Your task to perform on an android device: open app "Truecaller" Image 0: 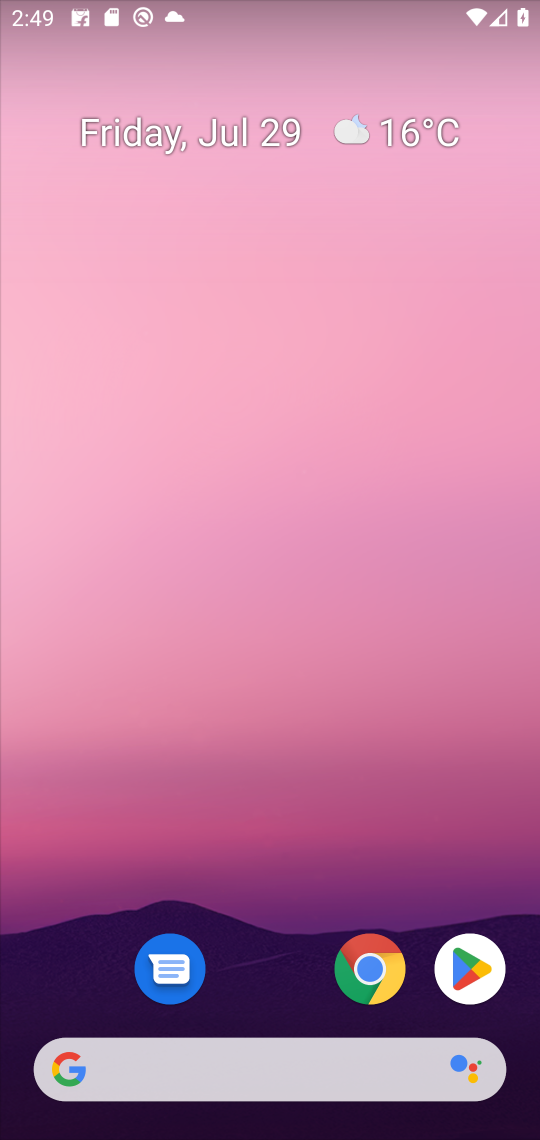
Step 0: press home button
Your task to perform on an android device: open app "Truecaller" Image 1: 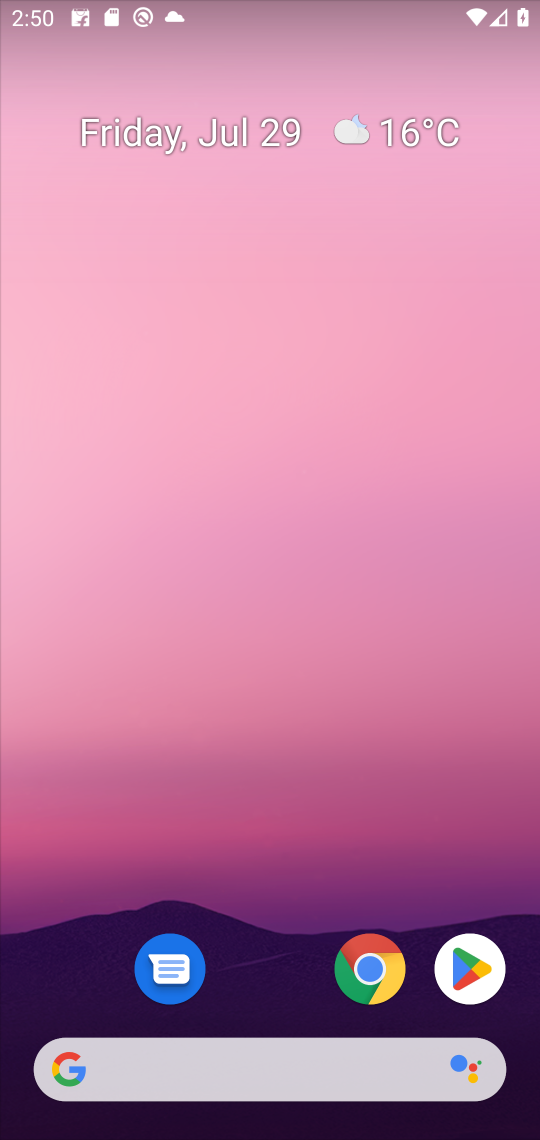
Step 1: click (484, 986)
Your task to perform on an android device: open app "Truecaller" Image 2: 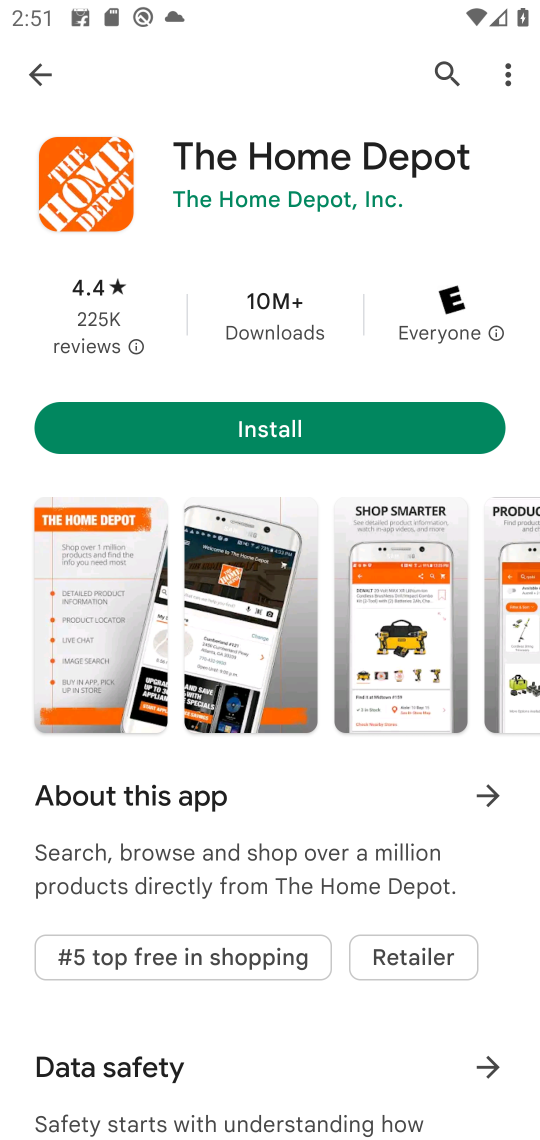
Step 2: click (442, 67)
Your task to perform on an android device: open app "Truecaller" Image 3: 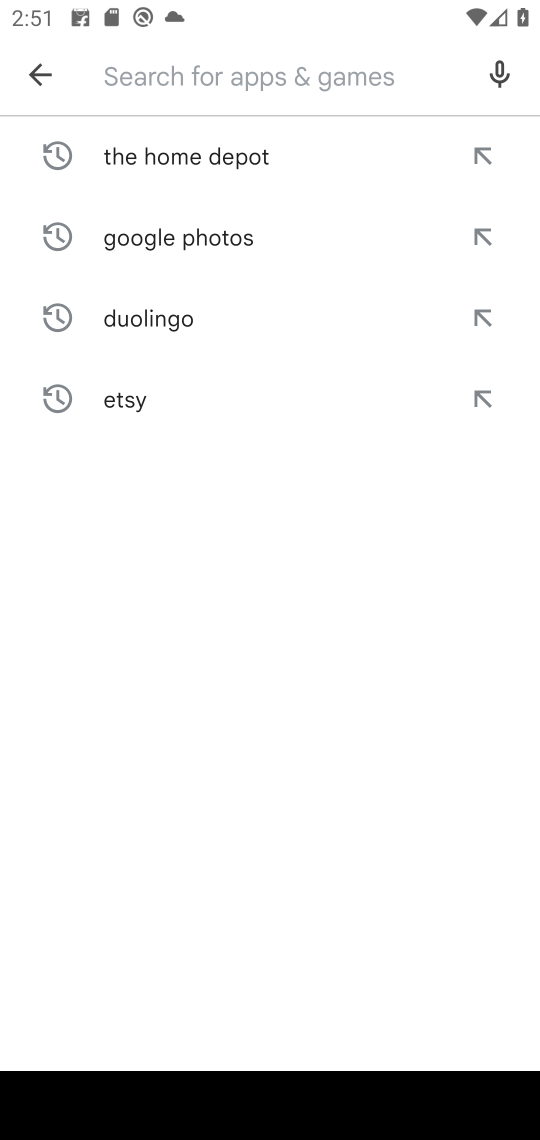
Step 3: type "truecaller"
Your task to perform on an android device: open app "Truecaller" Image 4: 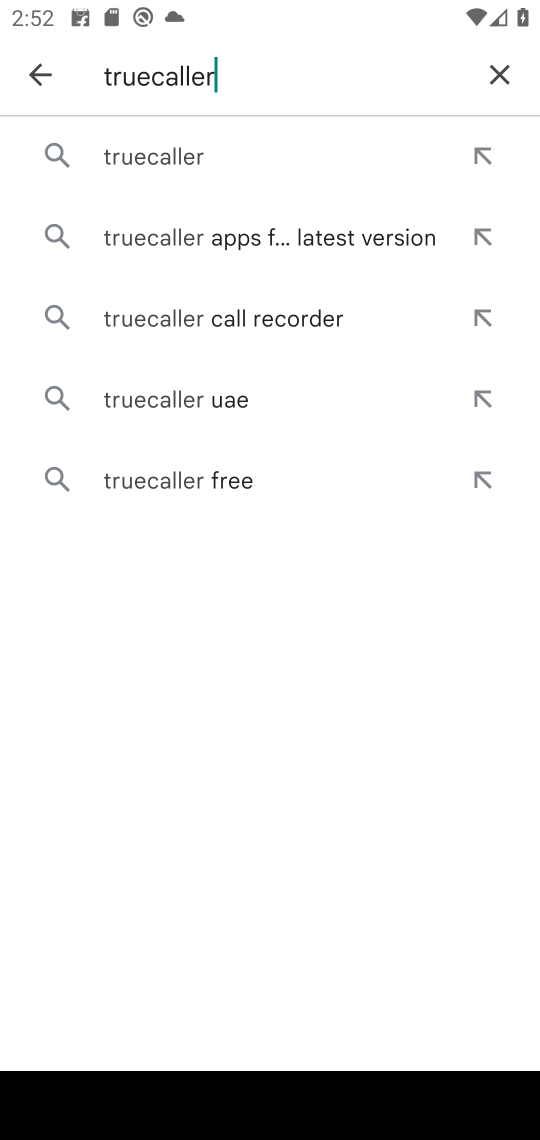
Step 4: click (204, 162)
Your task to perform on an android device: open app "Truecaller" Image 5: 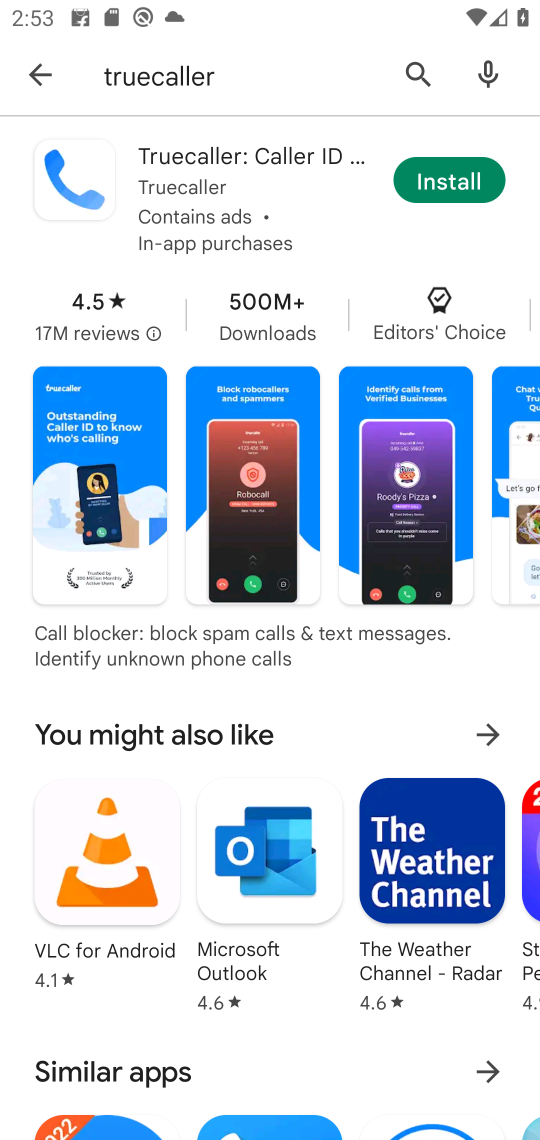
Step 5: task complete